Your task to perform on an android device: check battery use Image 0: 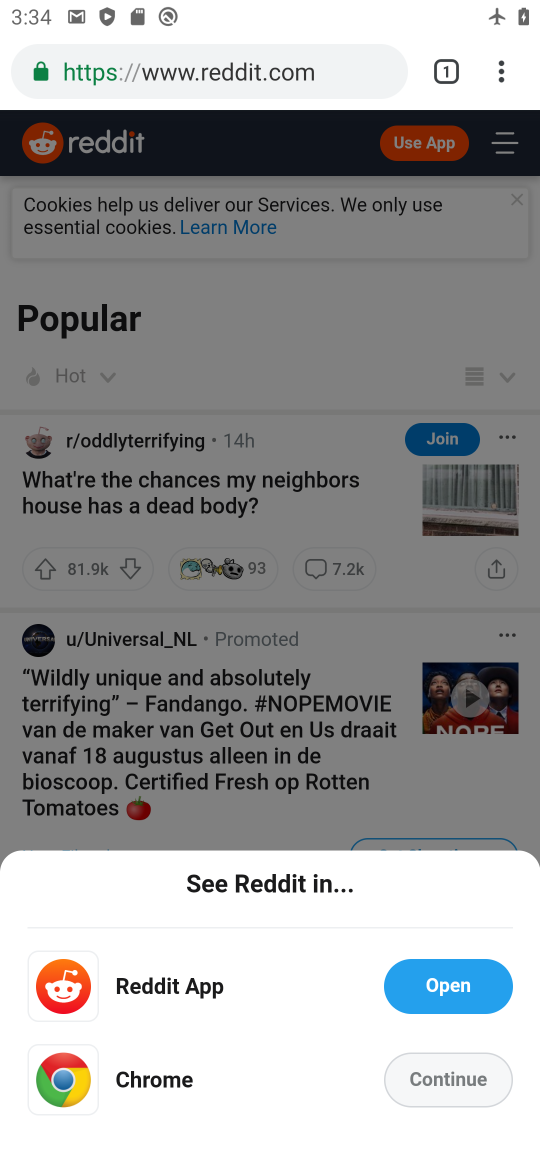
Step 0: press home button
Your task to perform on an android device: check battery use Image 1: 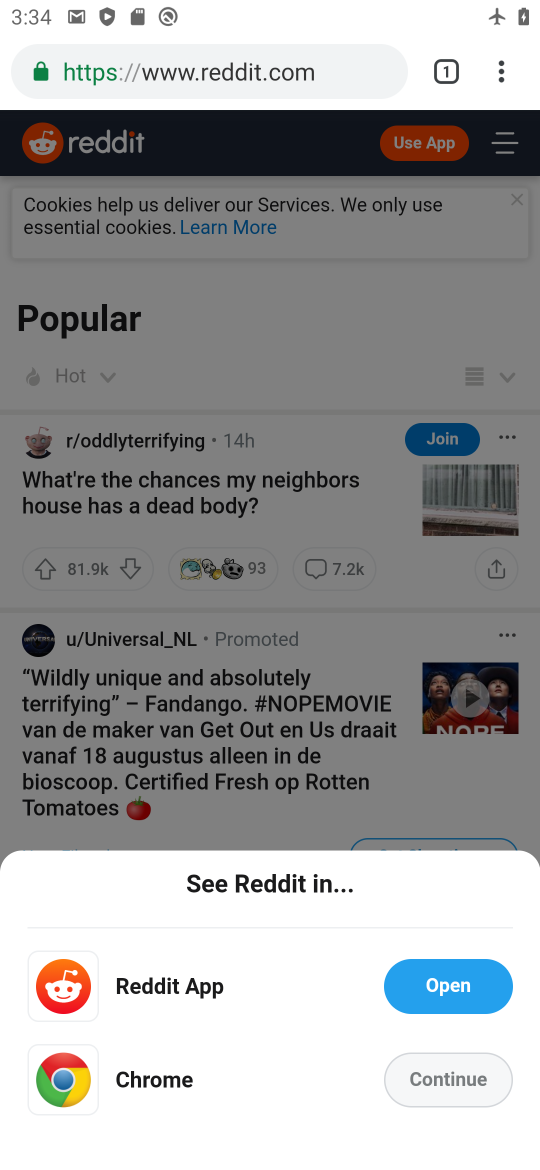
Step 1: press home button
Your task to perform on an android device: check battery use Image 2: 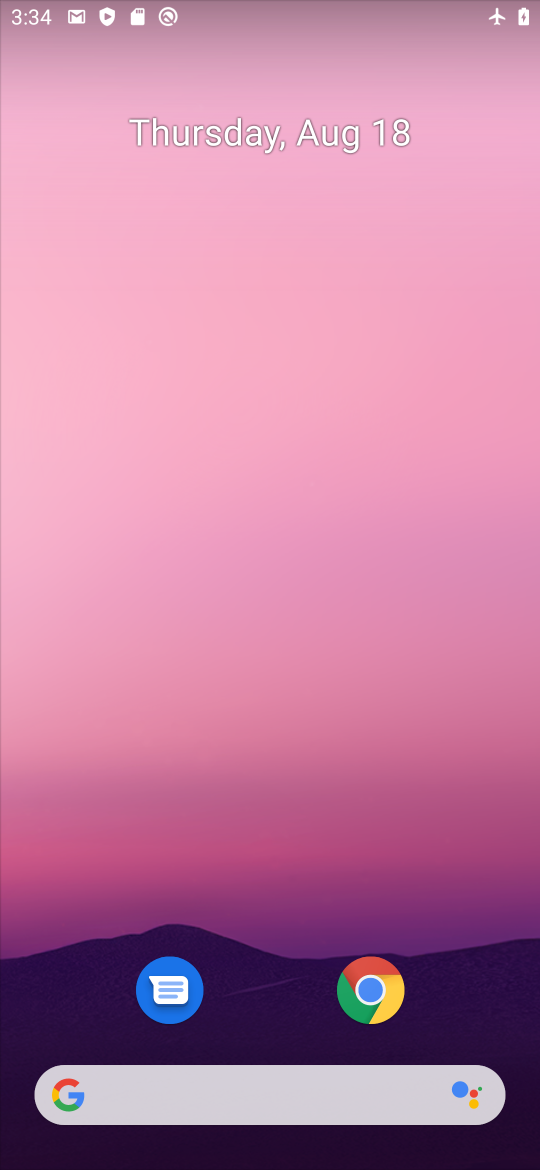
Step 2: drag from (279, 951) to (441, 124)
Your task to perform on an android device: check battery use Image 3: 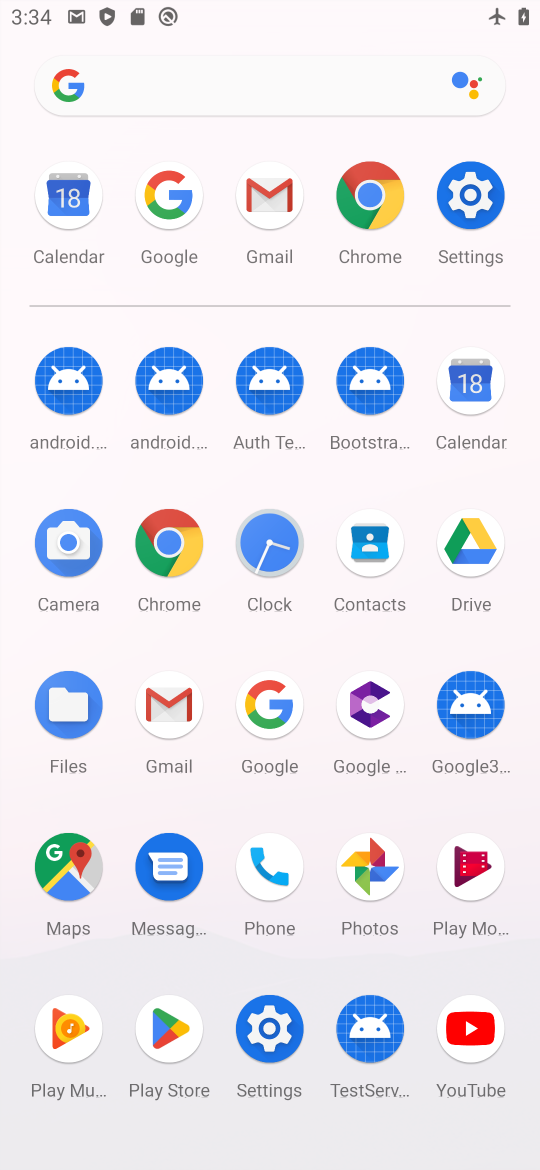
Step 3: click (272, 1016)
Your task to perform on an android device: check battery use Image 4: 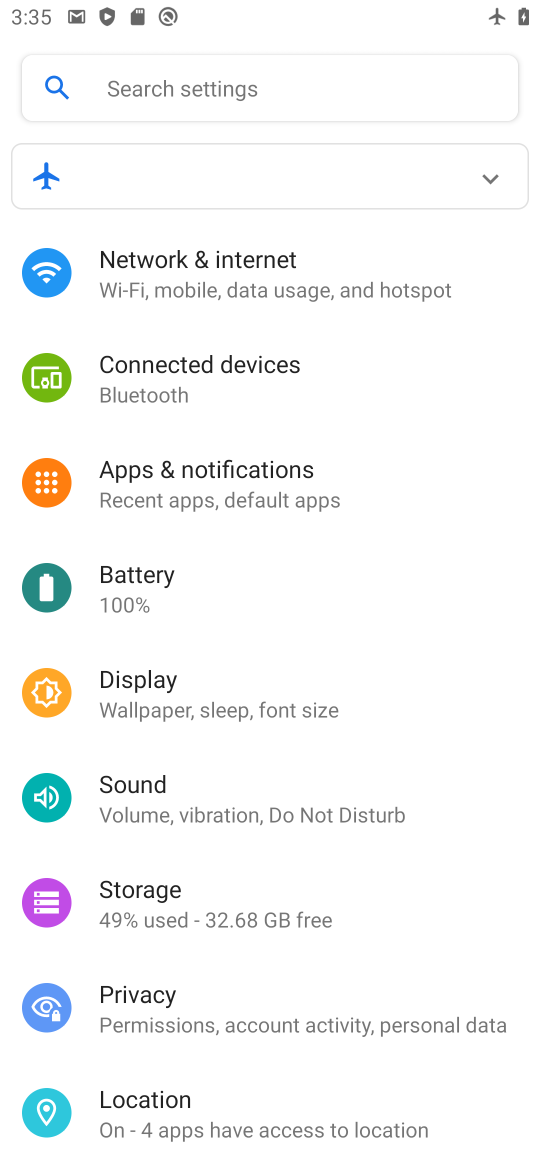
Step 4: click (171, 568)
Your task to perform on an android device: check battery use Image 5: 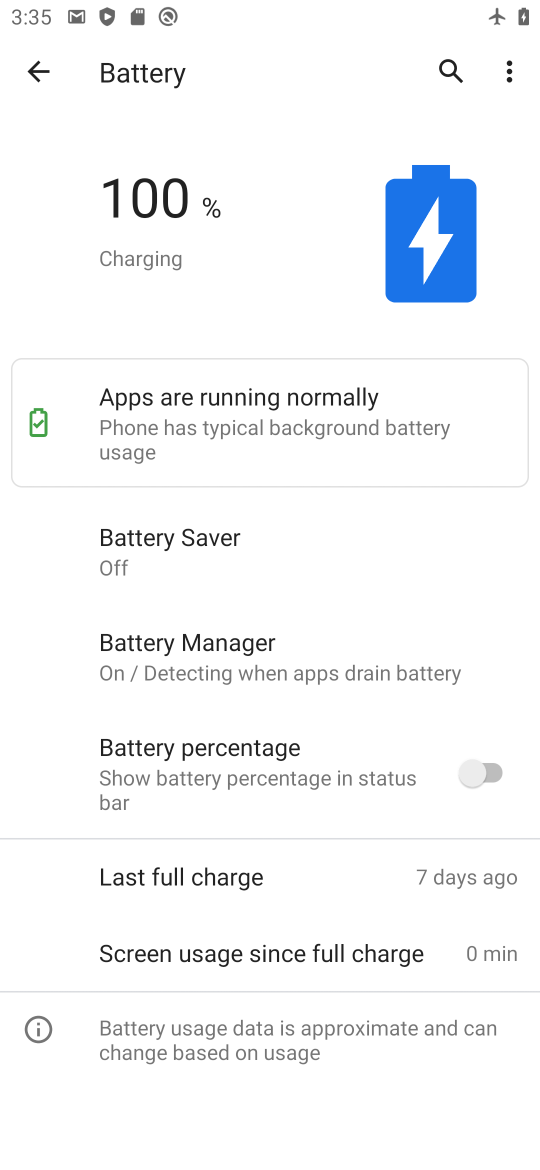
Step 5: click (501, 54)
Your task to perform on an android device: check battery use Image 6: 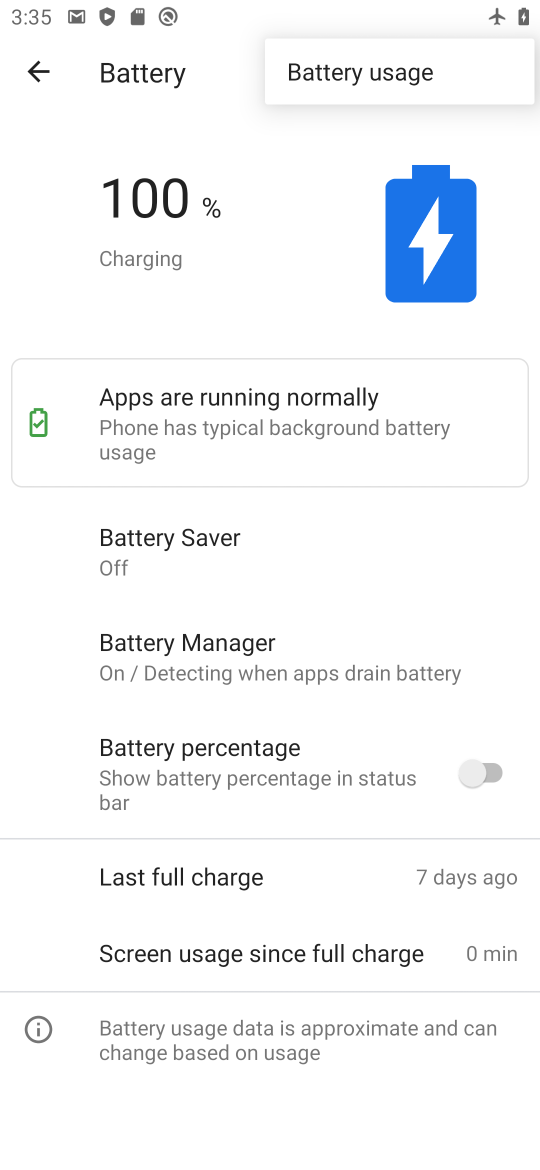
Step 6: click (406, 81)
Your task to perform on an android device: check battery use Image 7: 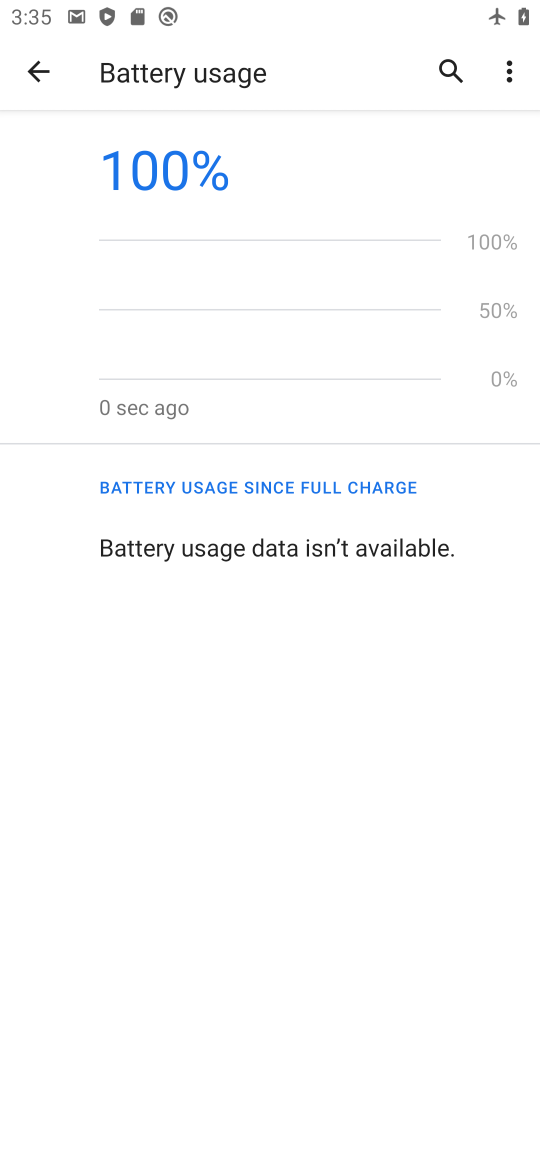
Step 7: task complete